Your task to perform on an android device: Open accessibility settings Image 0: 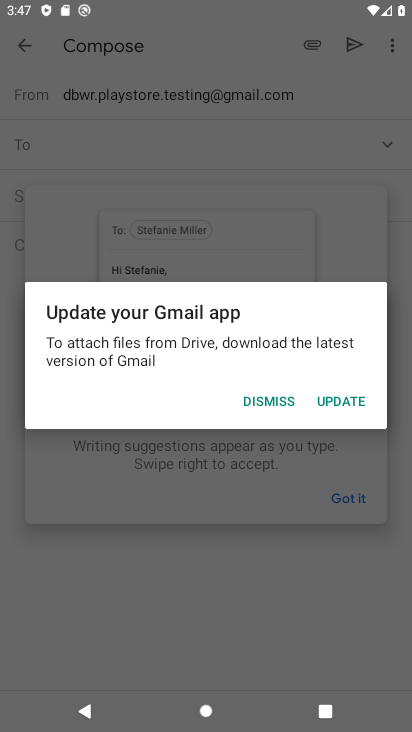
Step 0: press home button
Your task to perform on an android device: Open accessibility settings Image 1: 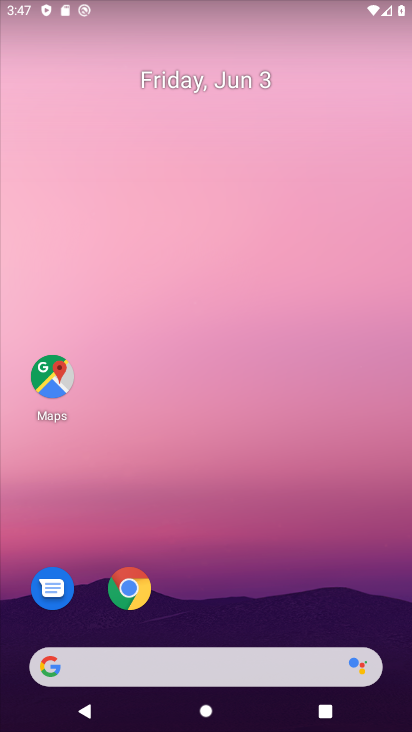
Step 1: drag from (249, 616) to (194, 93)
Your task to perform on an android device: Open accessibility settings Image 2: 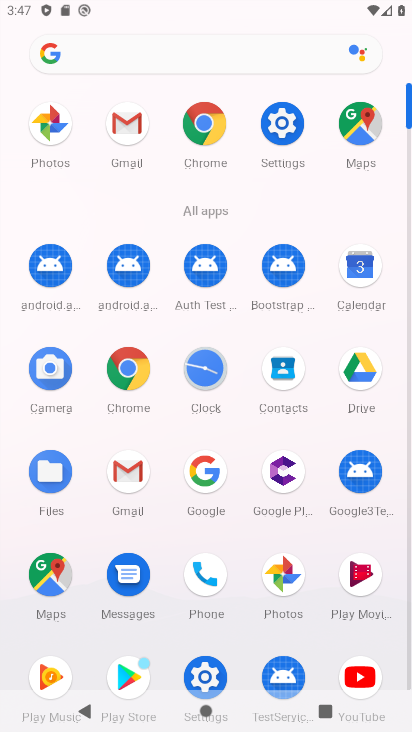
Step 2: click (293, 130)
Your task to perform on an android device: Open accessibility settings Image 3: 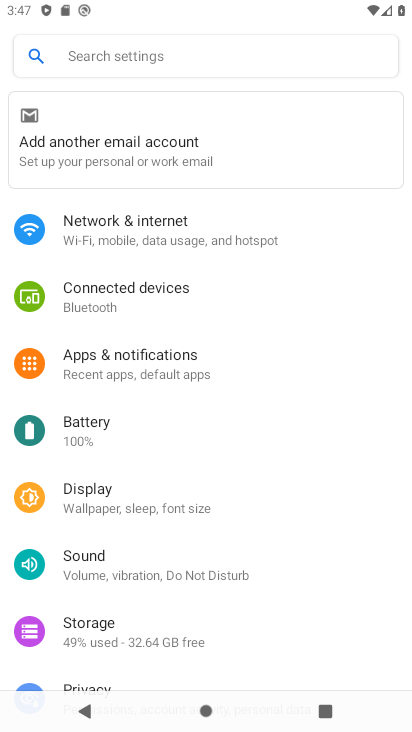
Step 3: drag from (205, 647) to (214, 182)
Your task to perform on an android device: Open accessibility settings Image 4: 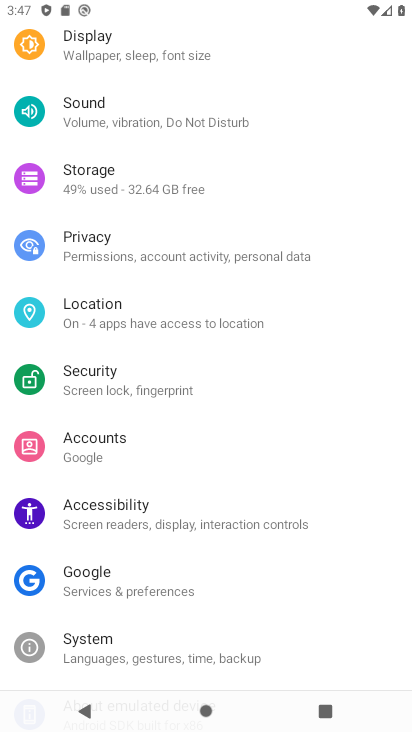
Step 4: click (200, 510)
Your task to perform on an android device: Open accessibility settings Image 5: 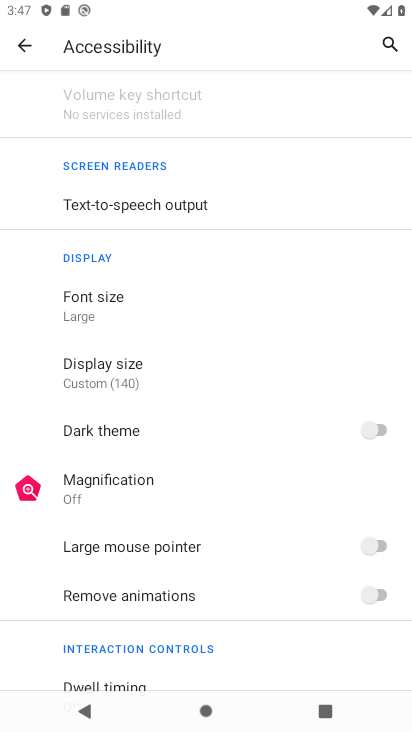
Step 5: task complete